Your task to perform on an android device: open app "Google Play Music" Image 0: 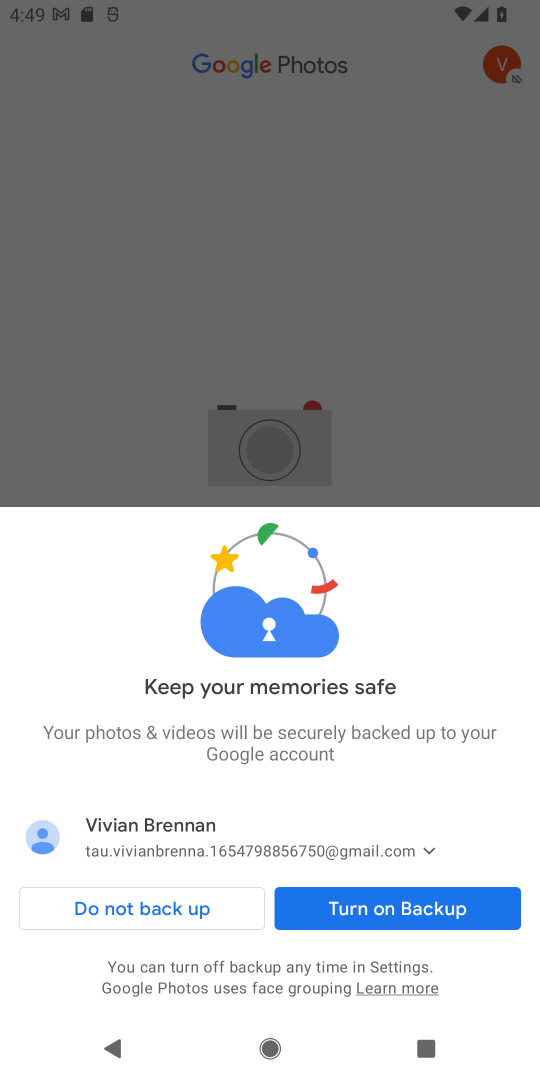
Step 0: press home button
Your task to perform on an android device: open app "Google Play Music" Image 1: 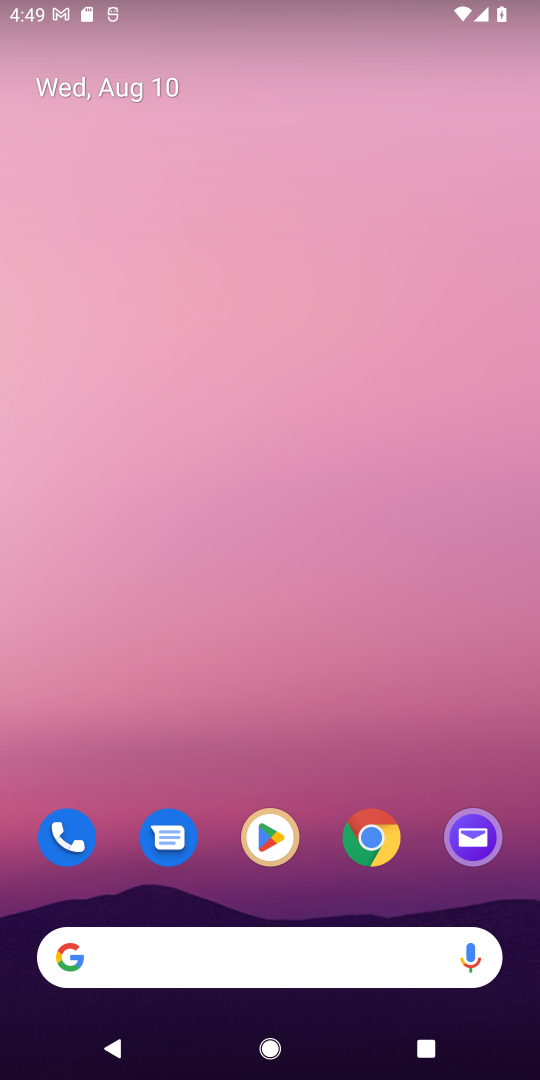
Step 1: click (270, 834)
Your task to perform on an android device: open app "Google Play Music" Image 2: 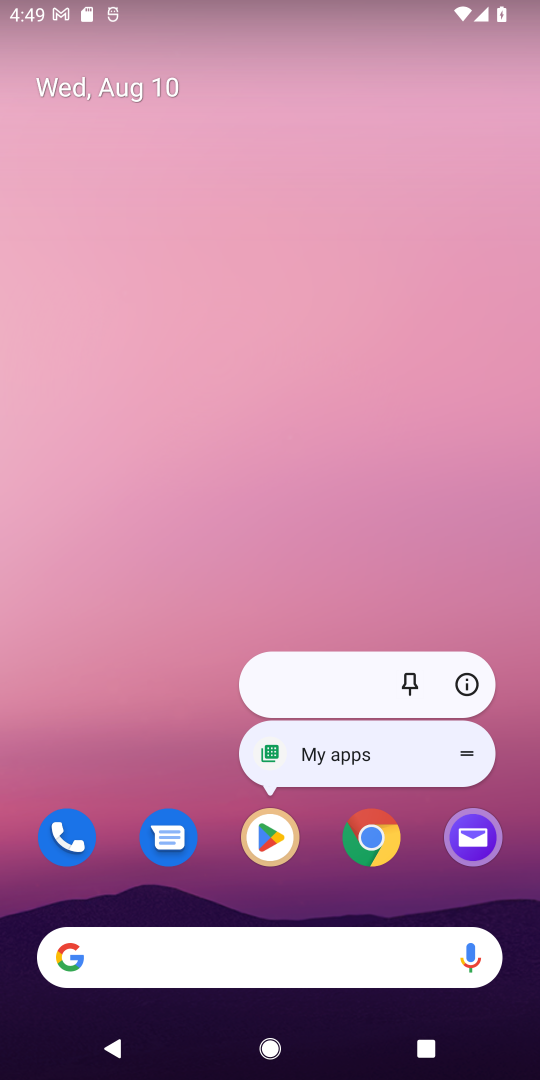
Step 2: click (268, 845)
Your task to perform on an android device: open app "Google Play Music" Image 3: 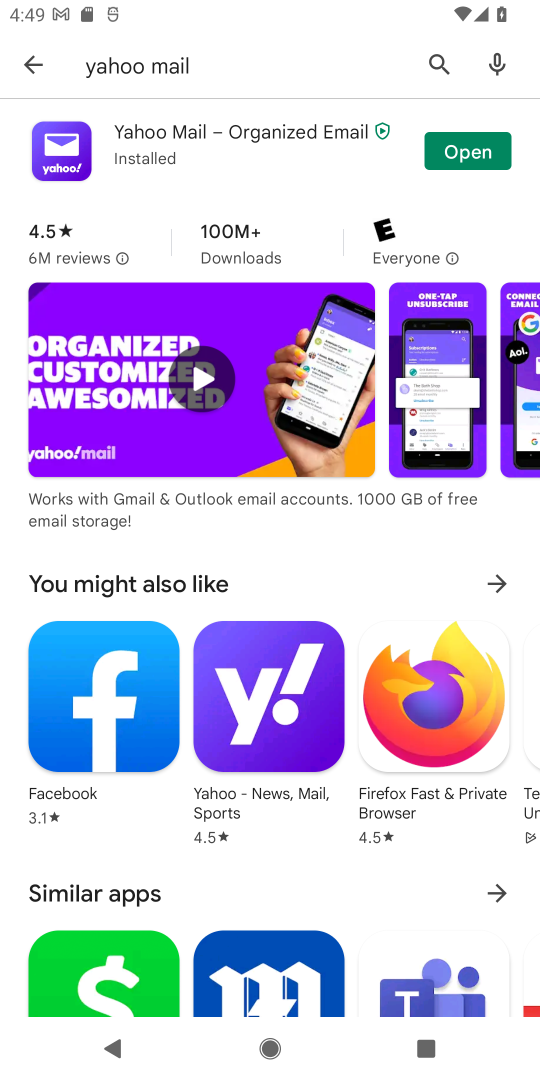
Step 3: click (441, 67)
Your task to perform on an android device: open app "Google Play Music" Image 4: 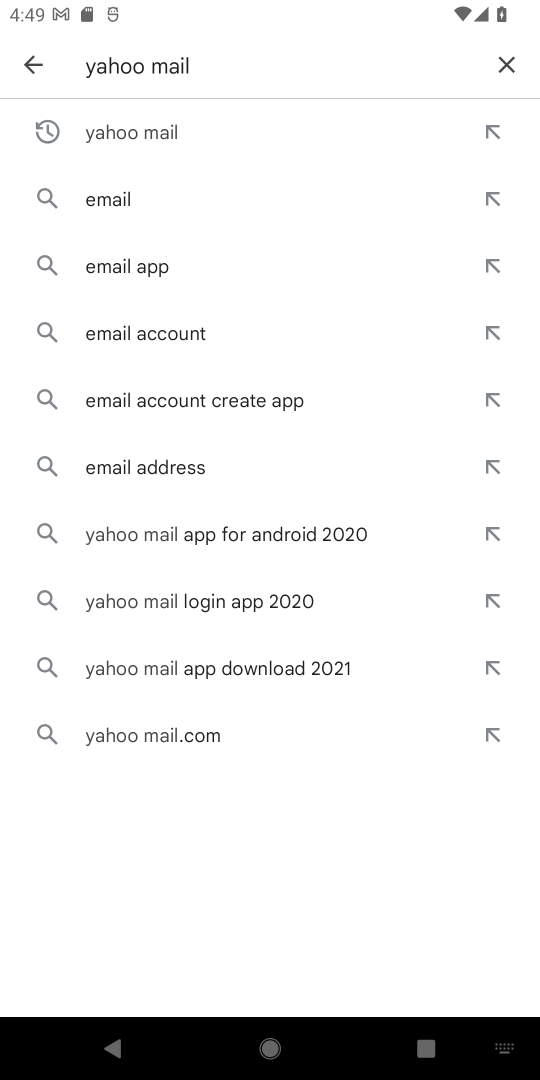
Step 4: click (503, 63)
Your task to perform on an android device: open app "Google Play Music" Image 5: 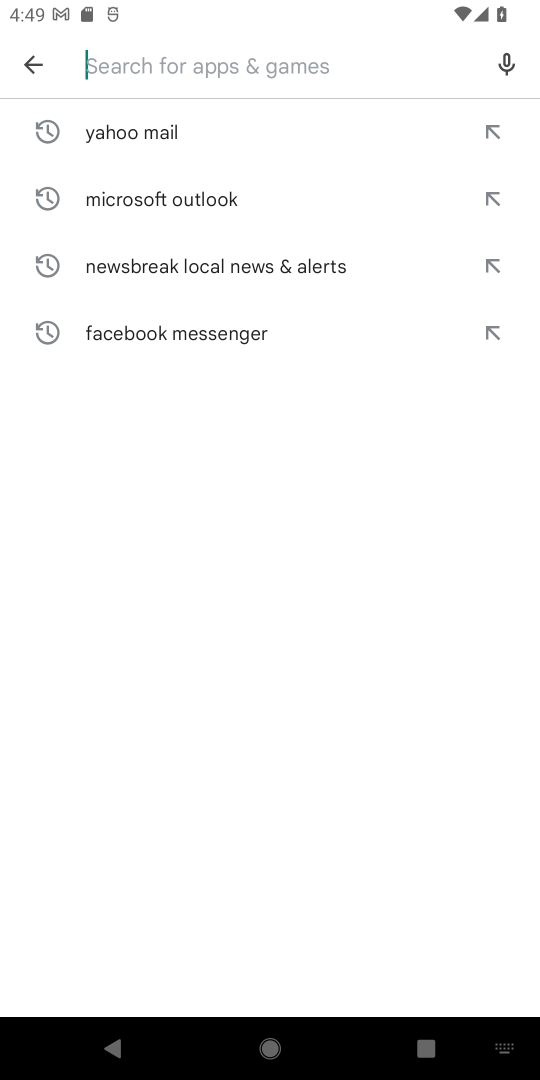
Step 5: type "Google Play Music"
Your task to perform on an android device: open app "Google Play Music" Image 6: 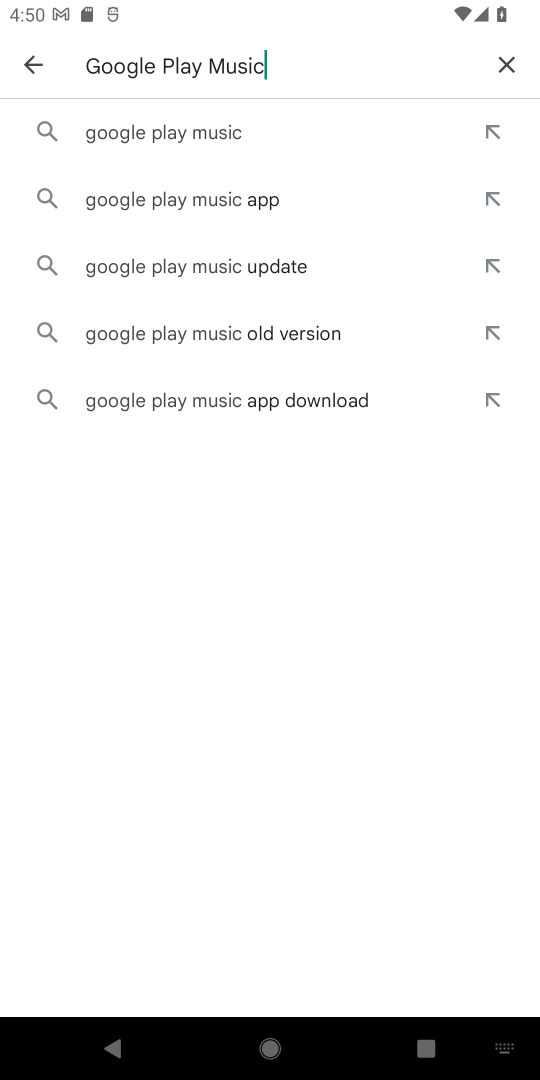
Step 6: click (201, 128)
Your task to perform on an android device: open app "Google Play Music" Image 7: 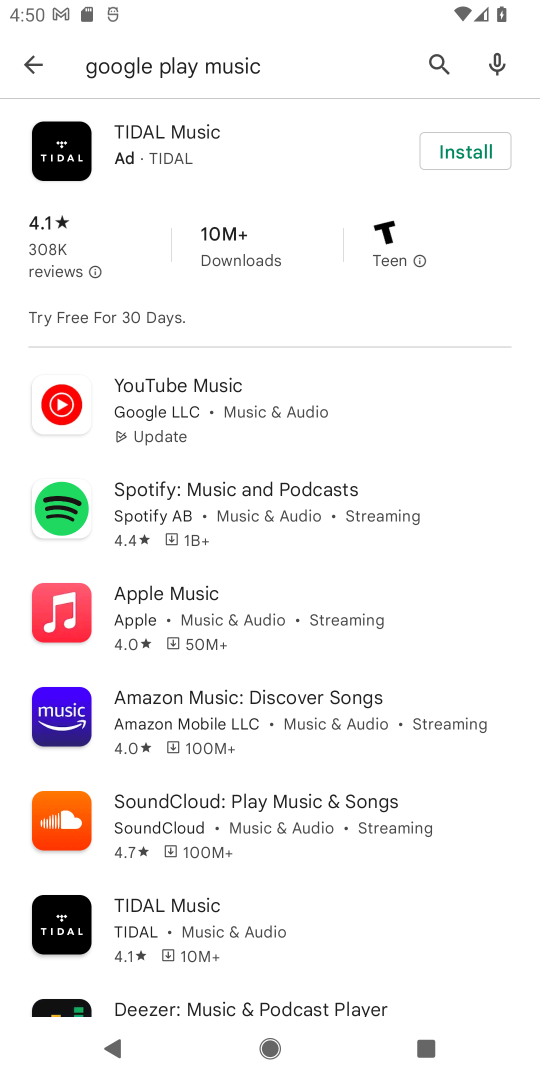
Step 7: task complete